Your task to perform on an android device: turn on javascript in the chrome app Image 0: 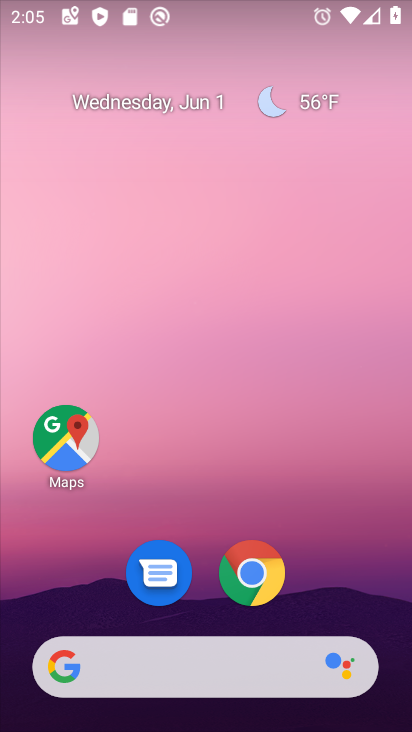
Step 0: drag from (304, 520) to (200, 0)
Your task to perform on an android device: turn on javascript in the chrome app Image 1: 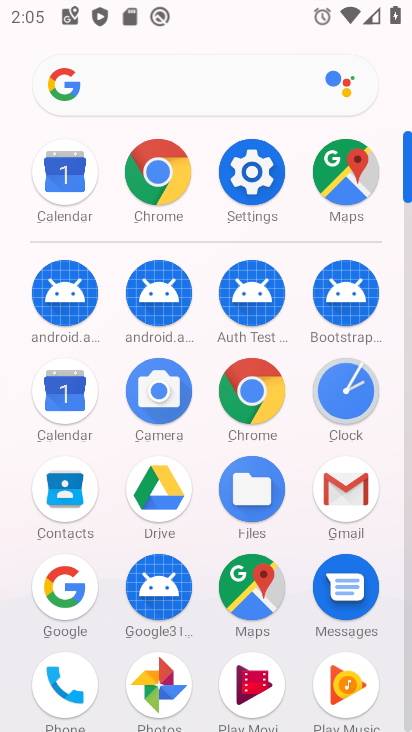
Step 1: click (161, 181)
Your task to perform on an android device: turn on javascript in the chrome app Image 2: 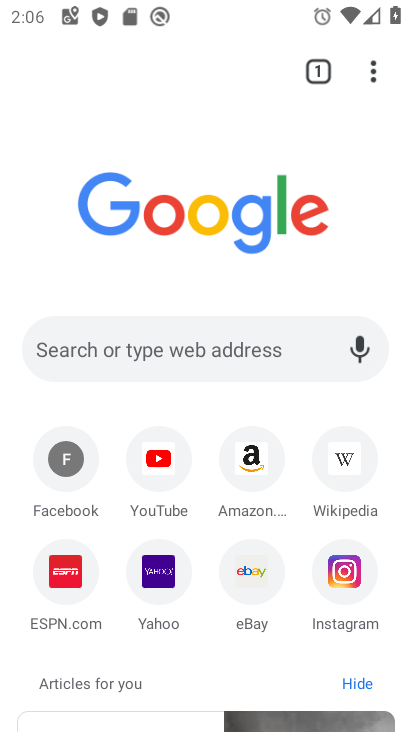
Step 2: drag from (368, 69) to (124, 625)
Your task to perform on an android device: turn on javascript in the chrome app Image 3: 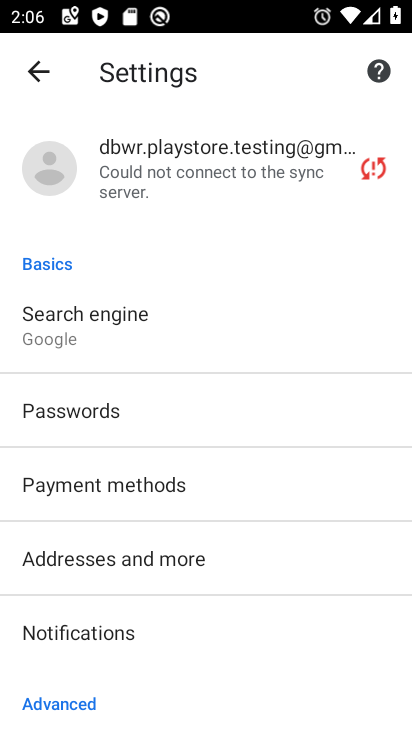
Step 3: drag from (129, 552) to (126, 150)
Your task to perform on an android device: turn on javascript in the chrome app Image 4: 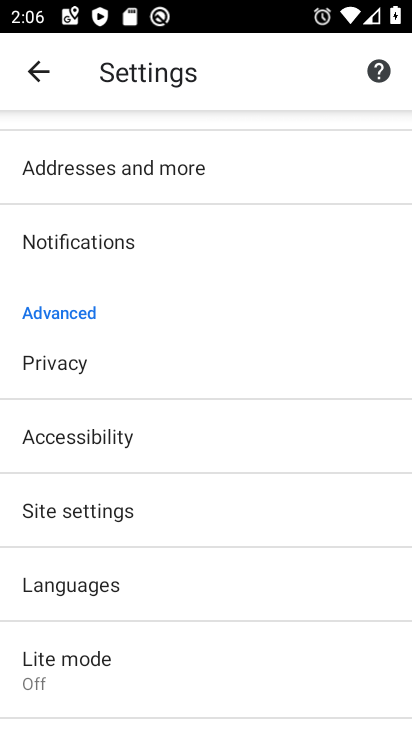
Step 4: click (111, 520)
Your task to perform on an android device: turn on javascript in the chrome app Image 5: 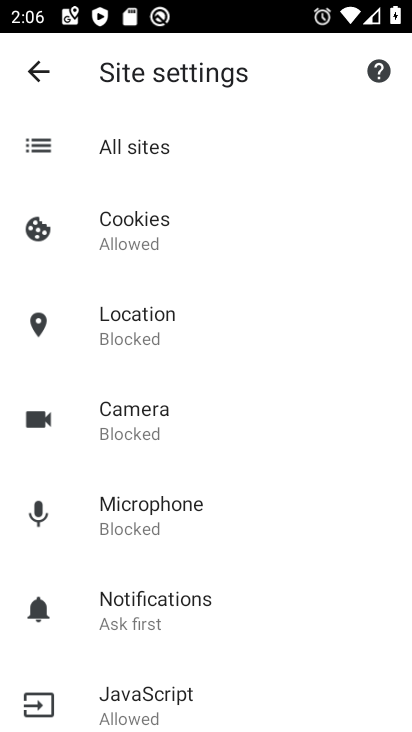
Step 5: drag from (157, 630) to (115, 240)
Your task to perform on an android device: turn on javascript in the chrome app Image 6: 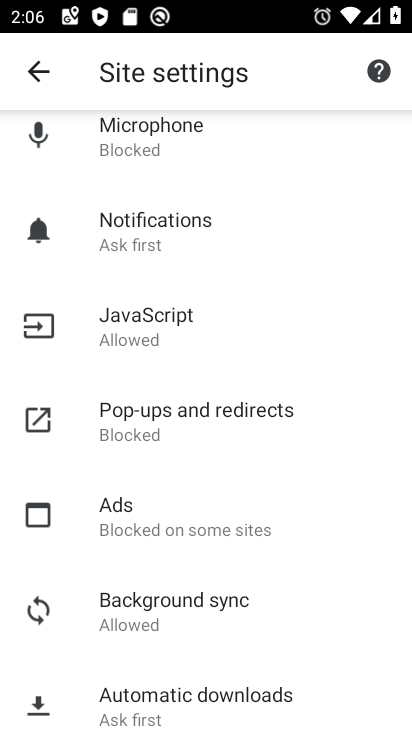
Step 6: click (137, 331)
Your task to perform on an android device: turn on javascript in the chrome app Image 7: 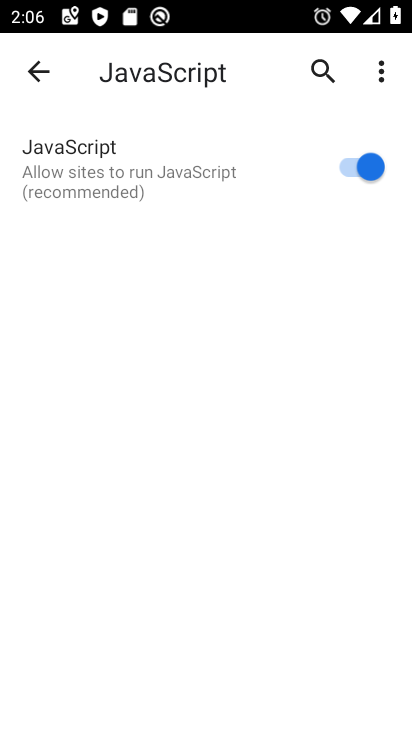
Step 7: task complete